Your task to perform on an android device: move a message to another label in the gmail app Image 0: 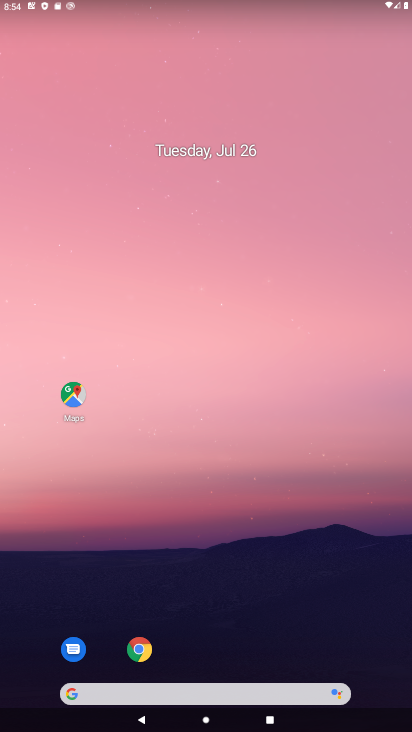
Step 0: drag from (194, 635) to (211, 162)
Your task to perform on an android device: move a message to another label in the gmail app Image 1: 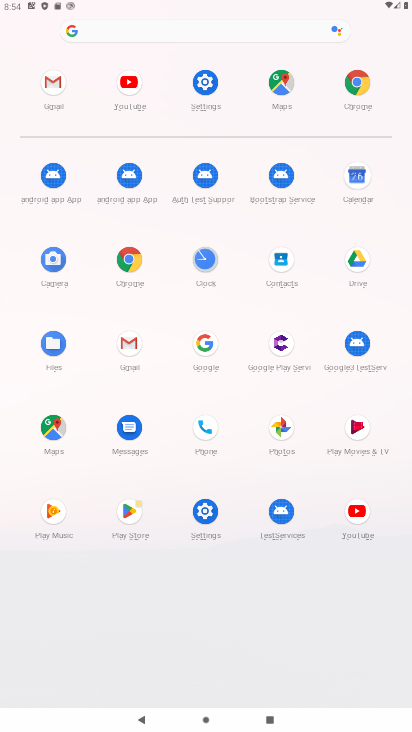
Step 1: click (125, 336)
Your task to perform on an android device: move a message to another label in the gmail app Image 2: 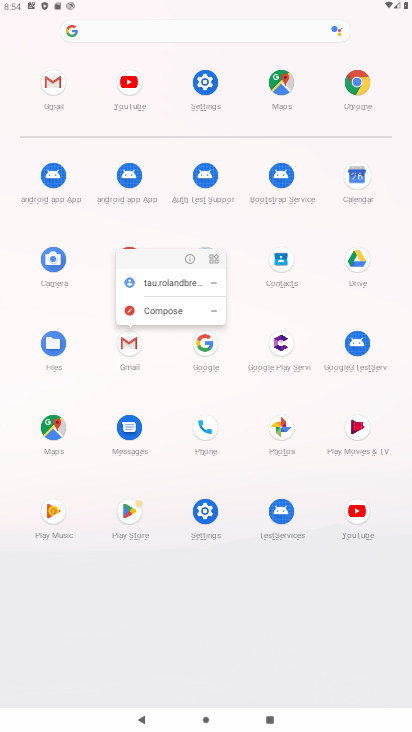
Step 2: click (190, 256)
Your task to perform on an android device: move a message to another label in the gmail app Image 3: 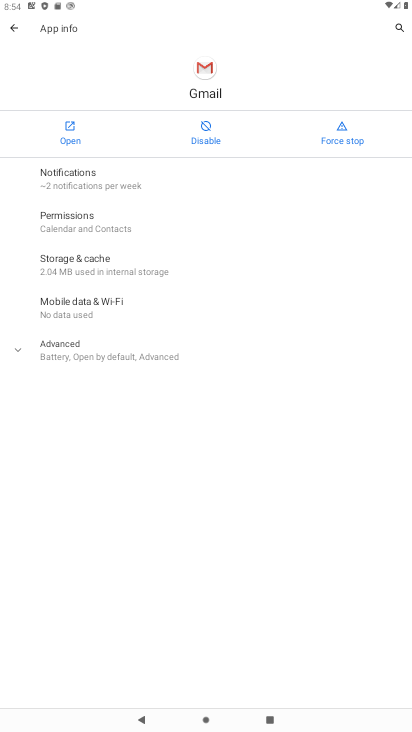
Step 3: click (73, 135)
Your task to perform on an android device: move a message to another label in the gmail app Image 4: 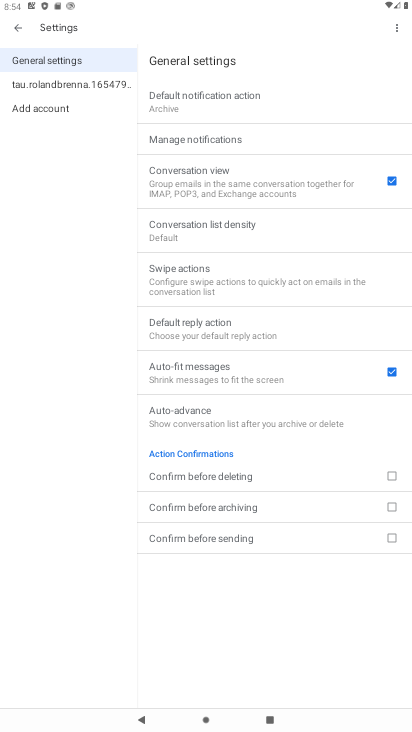
Step 4: click (58, 84)
Your task to perform on an android device: move a message to another label in the gmail app Image 5: 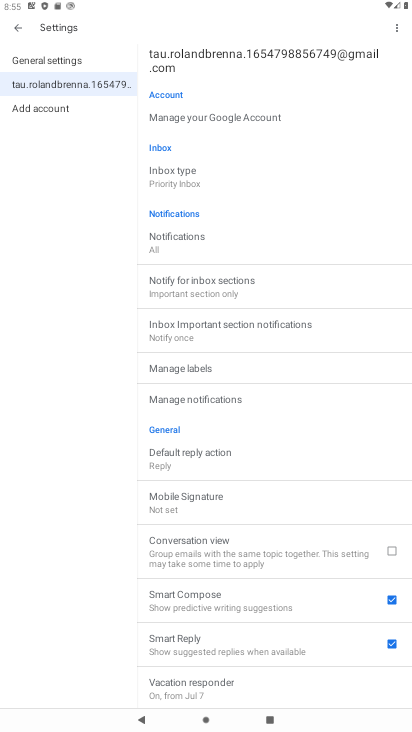
Step 5: click (16, 22)
Your task to perform on an android device: move a message to another label in the gmail app Image 6: 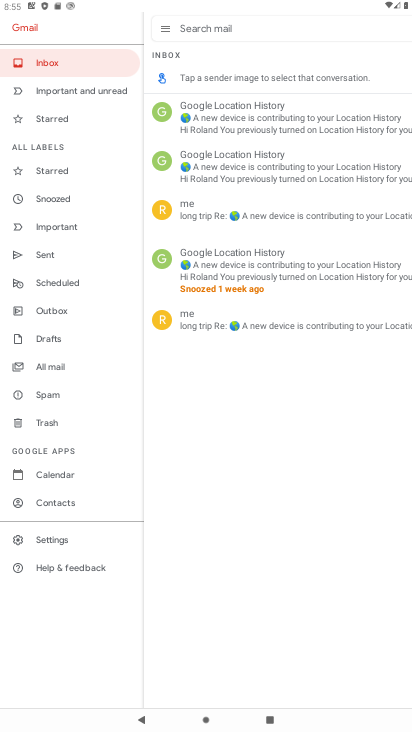
Step 6: click (62, 75)
Your task to perform on an android device: move a message to another label in the gmail app Image 7: 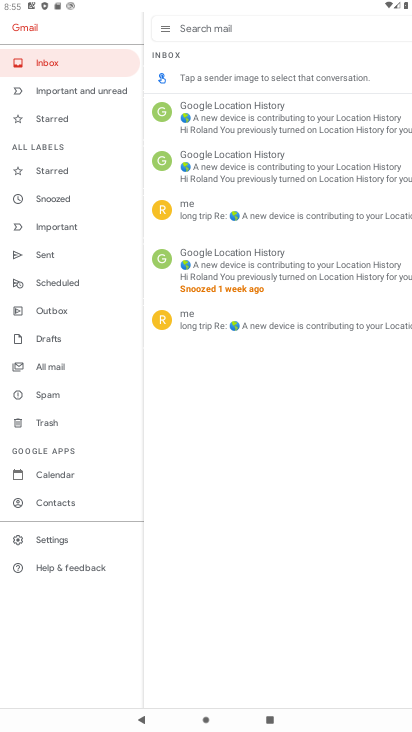
Step 7: click (258, 129)
Your task to perform on an android device: move a message to another label in the gmail app Image 8: 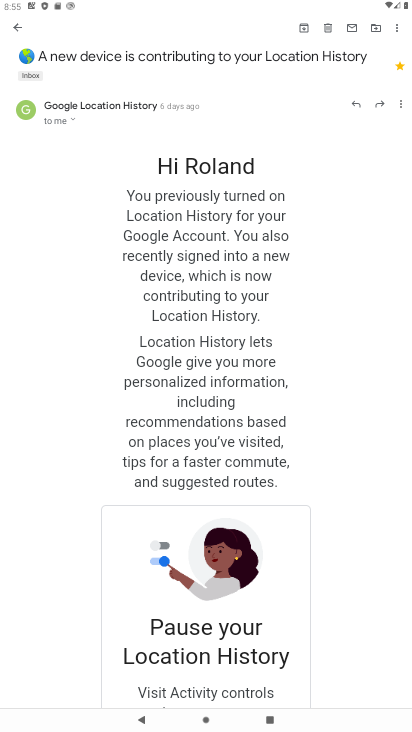
Step 8: click (396, 66)
Your task to perform on an android device: move a message to another label in the gmail app Image 9: 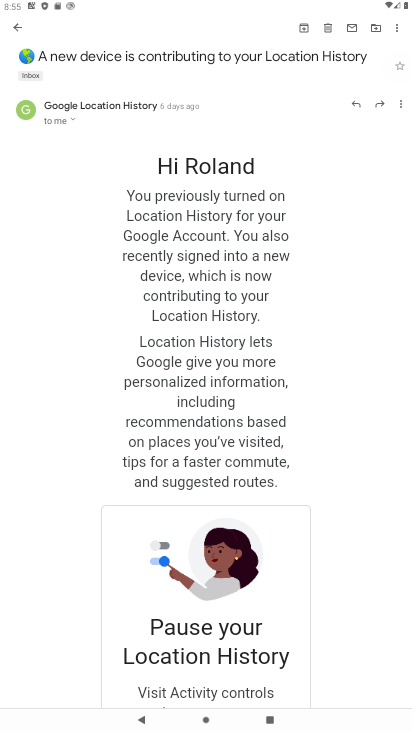
Step 9: task complete